Your task to perform on an android device: What's the weather going to be tomorrow? Image 0: 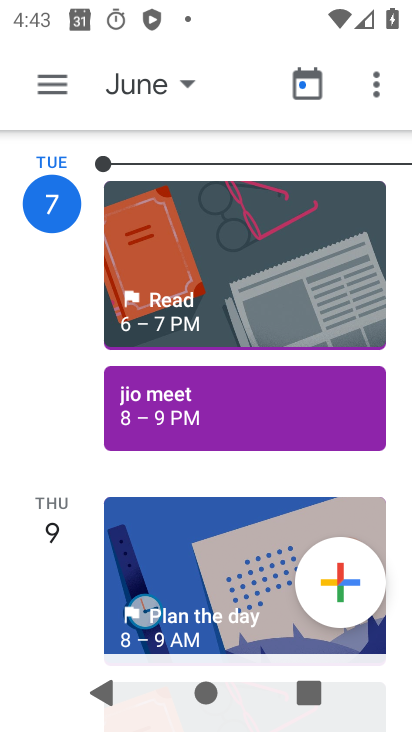
Step 0: press home button
Your task to perform on an android device: What's the weather going to be tomorrow? Image 1: 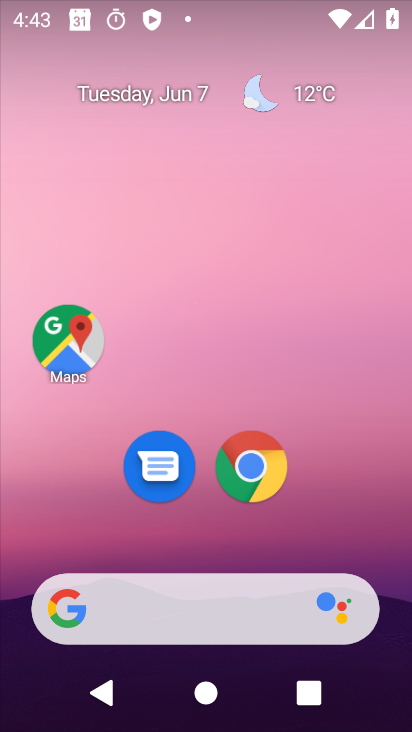
Step 1: click (240, 471)
Your task to perform on an android device: What's the weather going to be tomorrow? Image 2: 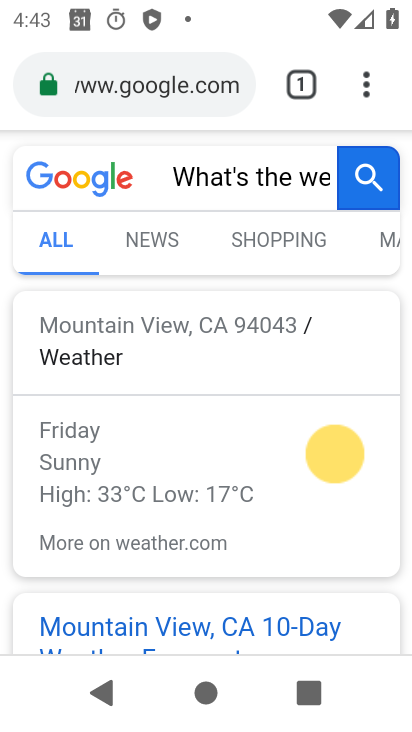
Step 2: click (162, 100)
Your task to perform on an android device: What's the weather going to be tomorrow? Image 3: 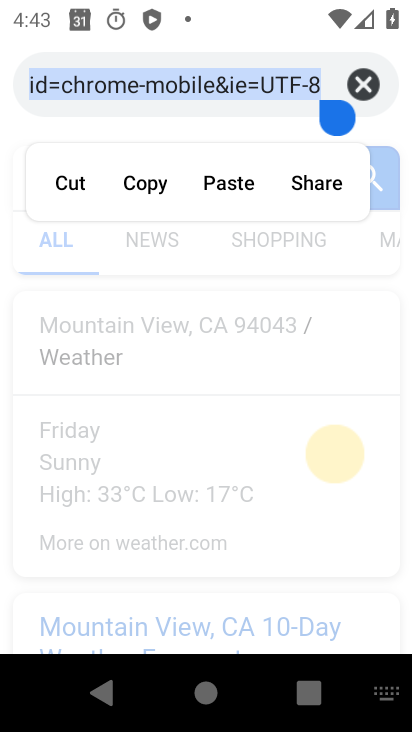
Step 3: type "What's the weather going to be tomorrow?"
Your task to perform on an android device: What's the weather going to be tomorrow? Image 4: 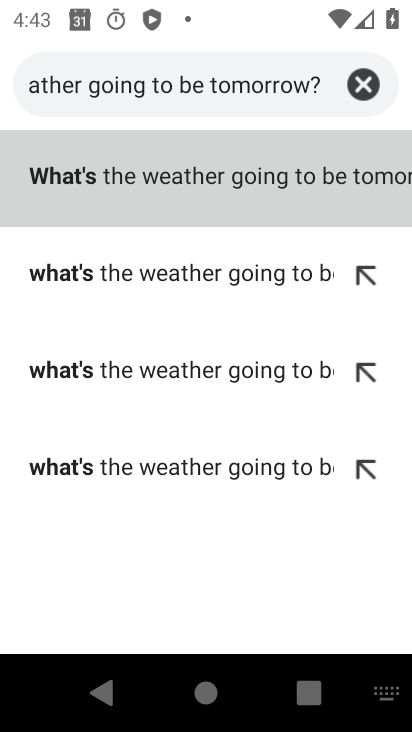
Step 4: click (266, 173)
Your task to perform on an android device: What's the weather going to be tomorrow? Image 5: 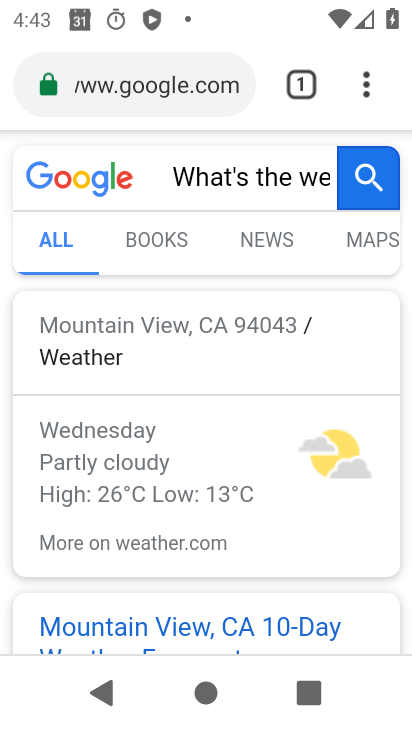
Step 5: task complete